Your task to perform on an android device: Go to calendar. Show me events next week Image 0: 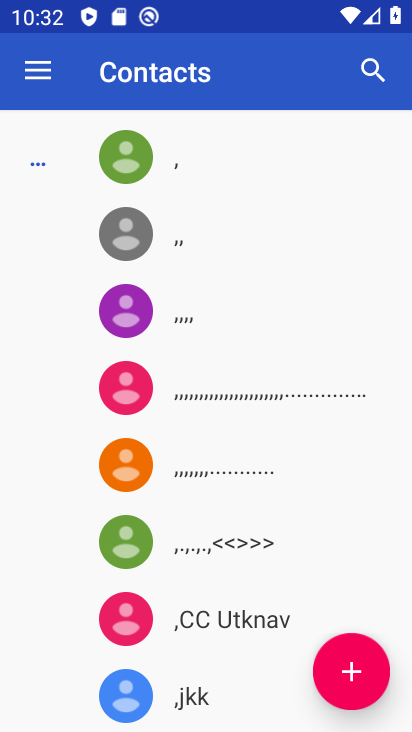
Step 0: press home button
Your task to perform on an android device: Go to calendar. Show me events next week Image 1: 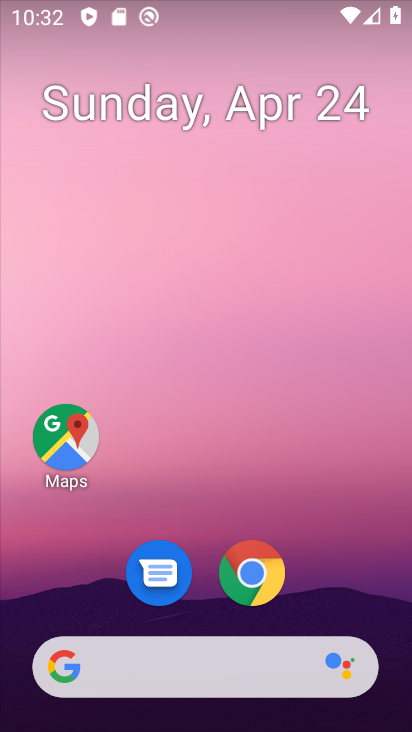
Step 1: drag from (321, 565) to (309, 0)
Your task to perform on an android device: Go to calendar. Show me events next week Image 2: 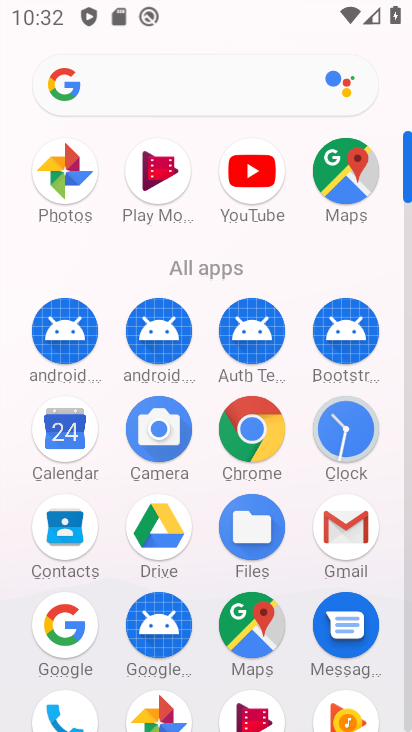
Step 2: click (79, 447)
Your task to perform on an android device: Go to calendar. Show me events next week Image 3: 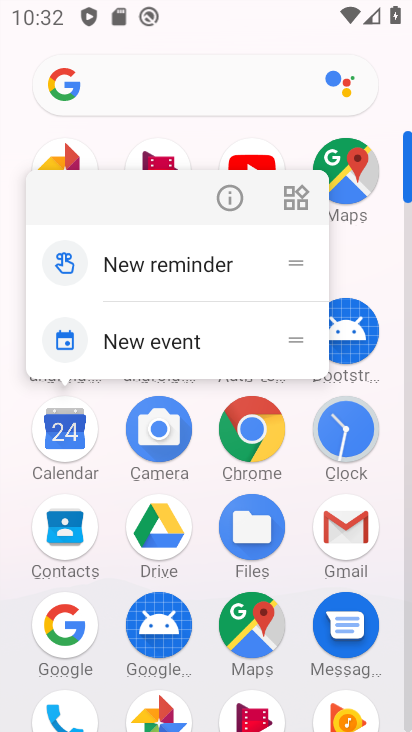
Step 3: click (78, 447)
Your task to perform on an android device: Go to calendar. Show me events next week Image 4: 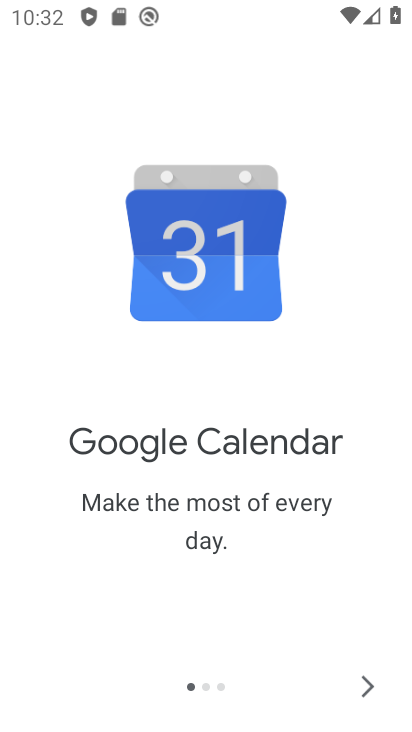
Step 4: click (375, 690)
Your task to perform on an android device: Go to calendar. Show me events next week Image 5: 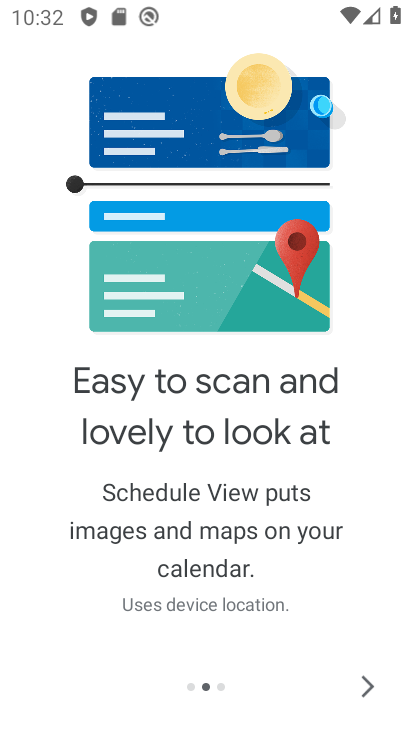
Step 5: click (375, 689)
Your task to perform on an android device: Go to calendar. Show me events next week Image 6: 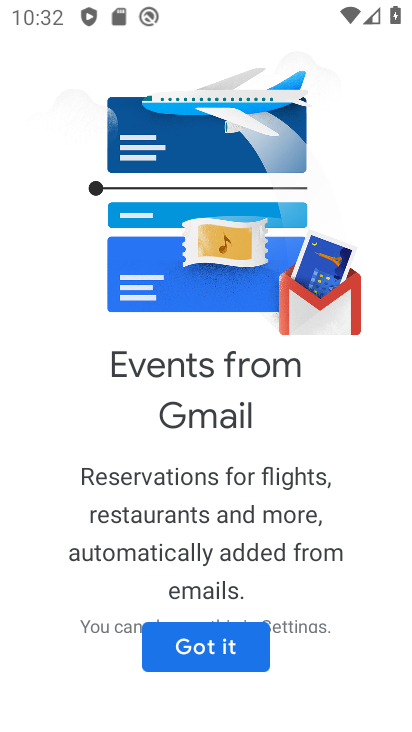
Step 6: click (226, 661)
Your task to perform on an android device: Go to calendar. Show me events next week Image 7: 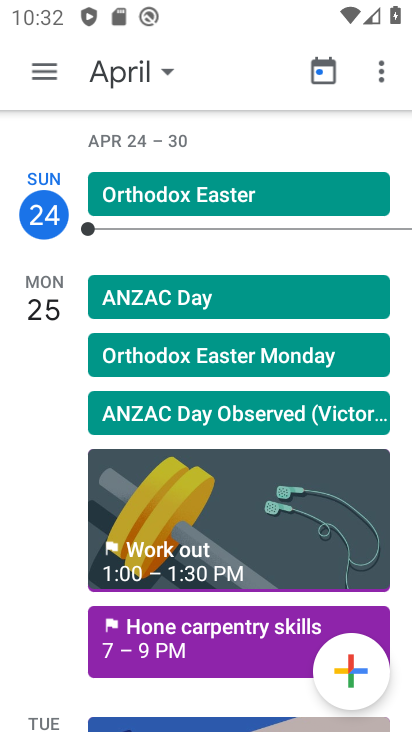
Step 7: click (131, 62)
Your task to perform on an android device: Go to calendar. Show me events next week Image 8: 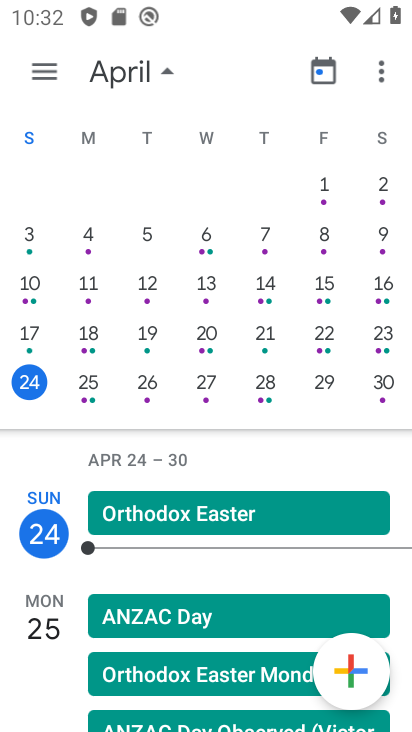
Step 8: drag from (369, 350) to (0, 271)
Your task to perform on an android device: Go to calendar. Show me events next week Image 9: 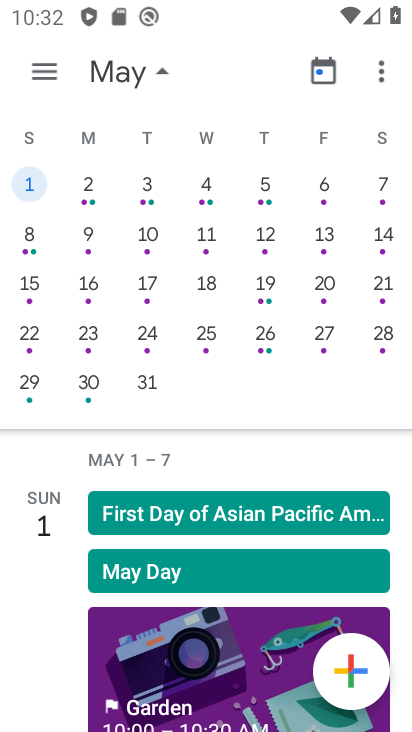
Step 9: click (82, 194)
Your task to perform on an android device: Go to calendar. Show me events next week Image 10: 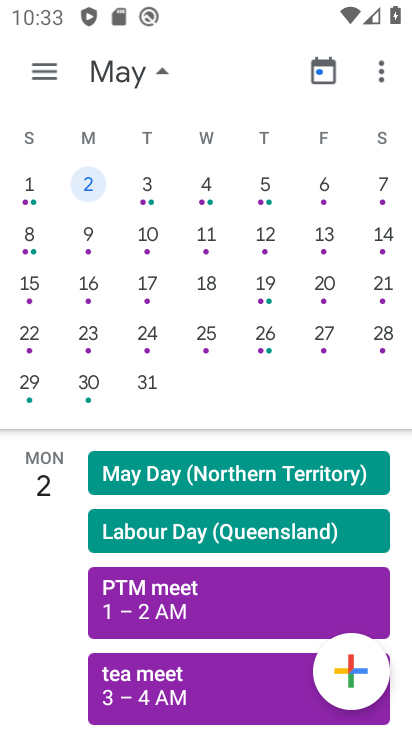
Step 10: click (145, 195)
Your task to perform on an android device: Go to calendar. Show me events next week Image 11: 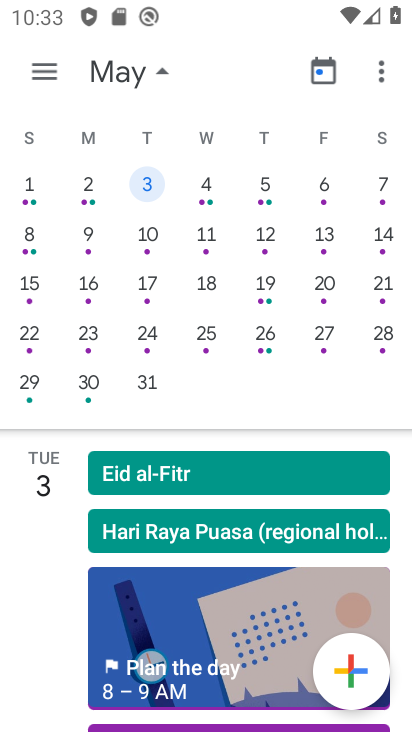
Step 11: click (215, 180)
Your task to perform on an android device: Go to calendar. Show me events next week Image 12: 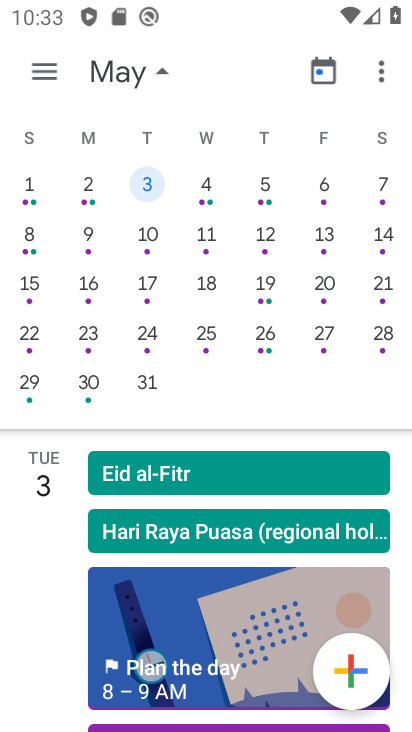
Step 12: click (206, 193)
Your task to perform on an android device: Go to calendar. Show me events next week Image 13: 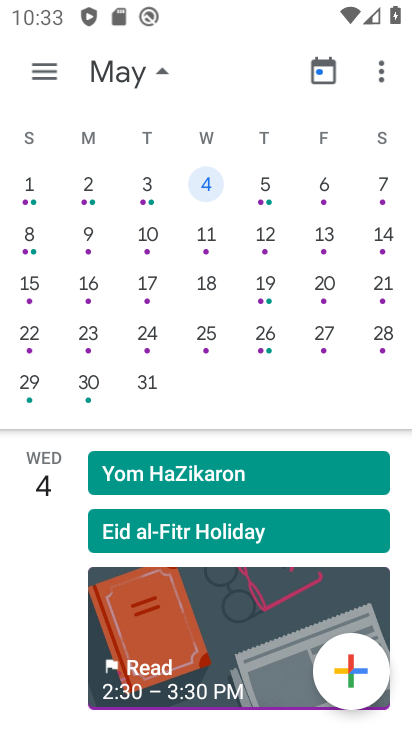
Step 13: click (262, 194)
Your task to perform on an android device: Go to calendar. Show me events next week Image 14: 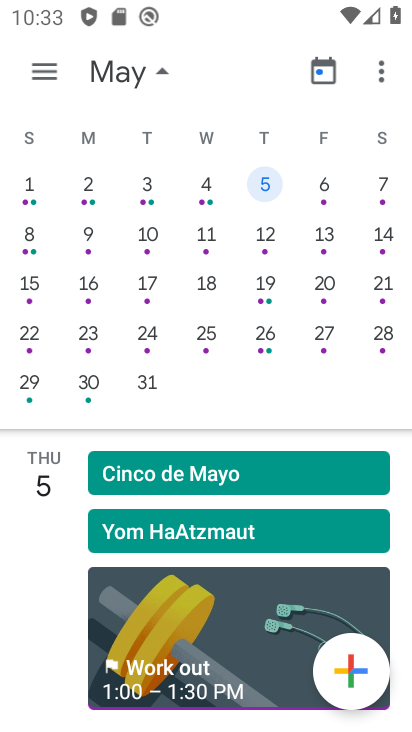
Step 14: click (316, 192)
Your task to perform on an android device: Go to calendar. Show me events next week Image 15: 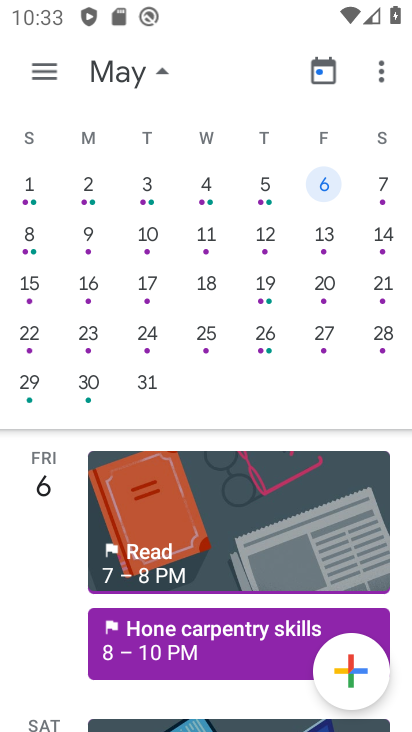
Step 15: click (383, 186)
Your task to perform on an android device: Go to calendar. Show me events next week Image 16: 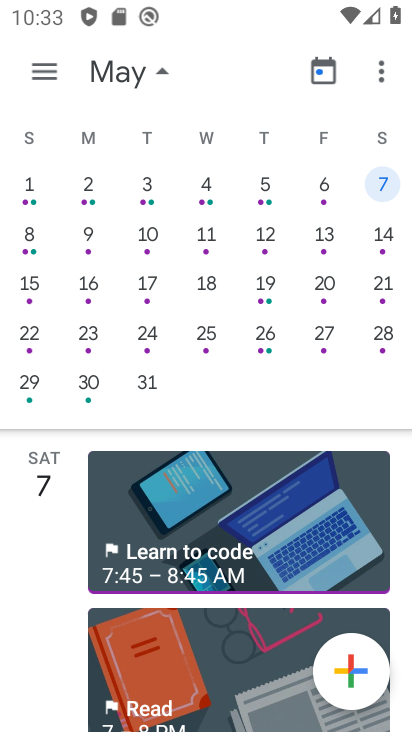
Step 16: task complete